Your task to perform on an android device: turn notification dots off Image 0: 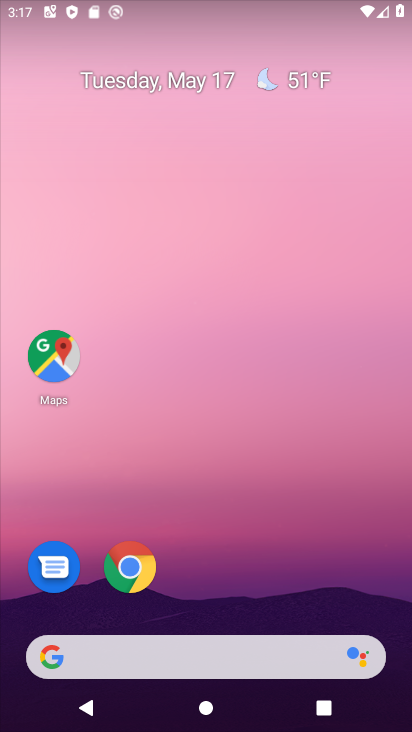
Step 0: drag from (223, 665) to (214, 391)
Your task to perform on an android device: turn notification dots off Image 1: 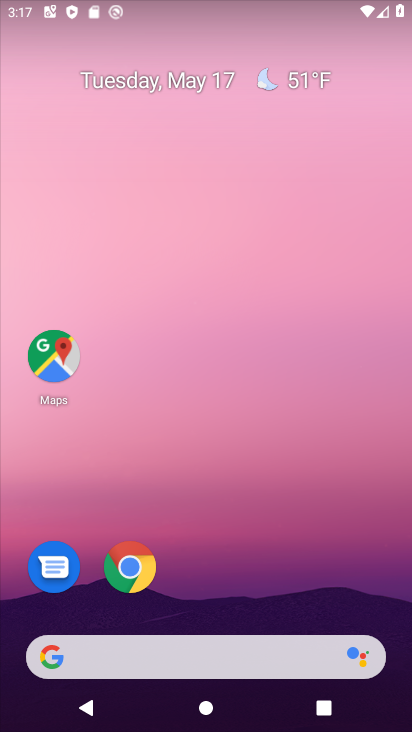
Step 1: drag from (203, 680) to (227, 182)
Your task to perform on an android device: turn notification dots off Image 2: 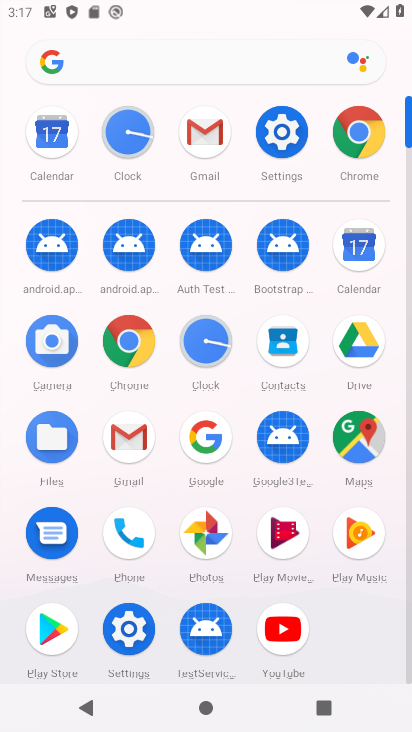
Step 2: click (118, 617)
Your task to perform on an android device: turn notification dots off Image 3: 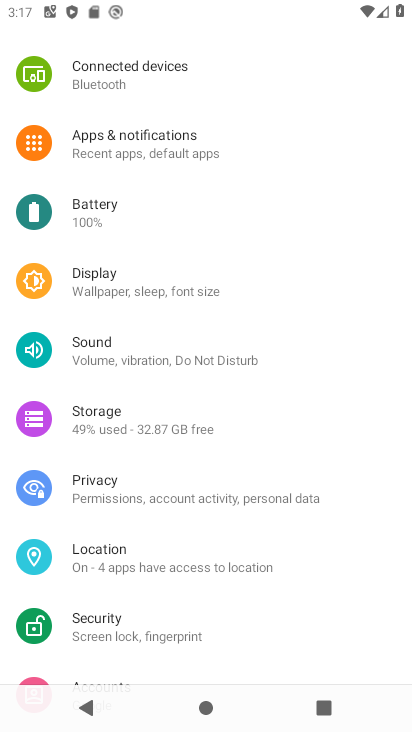
Step 3: click (130, 157)
Your task to perform on an android device: turn notification dots off Image 4: 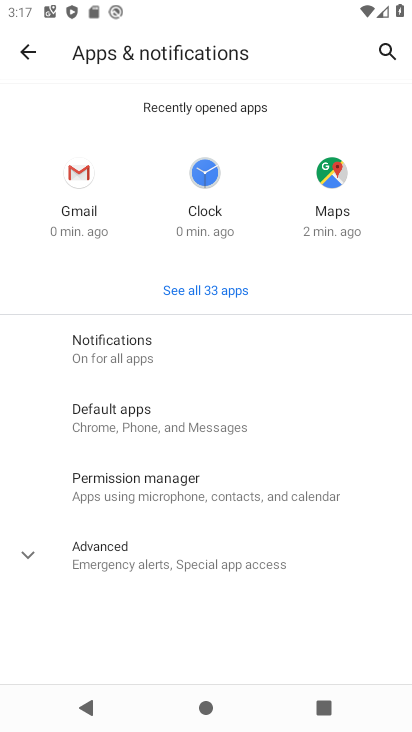
Step 4: click (153, 352)
Your task to perform on an android device: turn notification dots off Image 5: 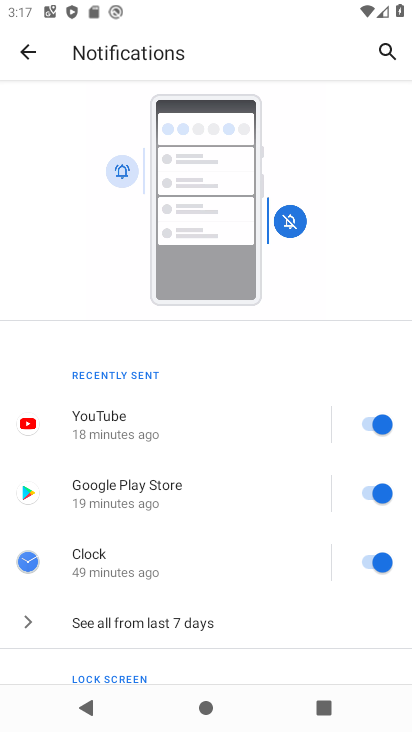
Step 5: drag from (195, 584) to (234, 176)
Your task to perform on an android device: turn notification dots off Image 6: 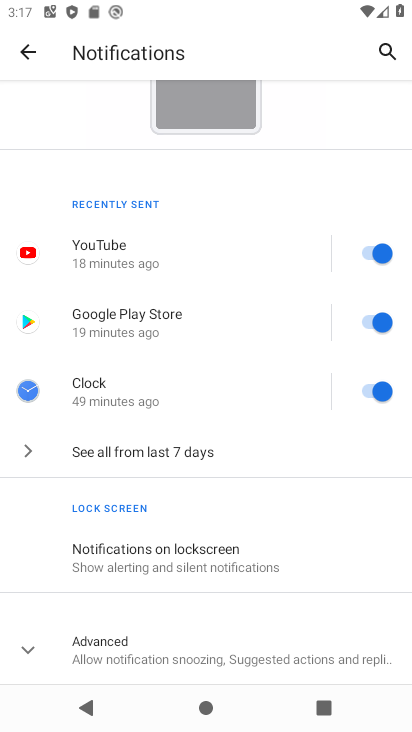
Step 6: click (204, 657)
Your task to perform on an android device: turn notification dots off Image 7: 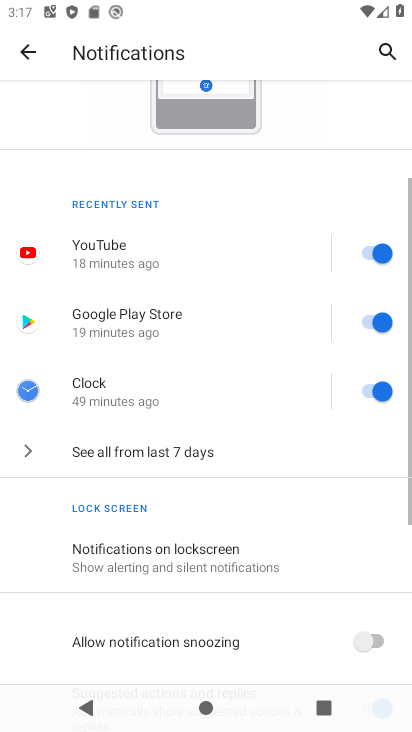
Step 7: task complete